Your task to perform on an android device: snooze an email in the gmail app Image 0: 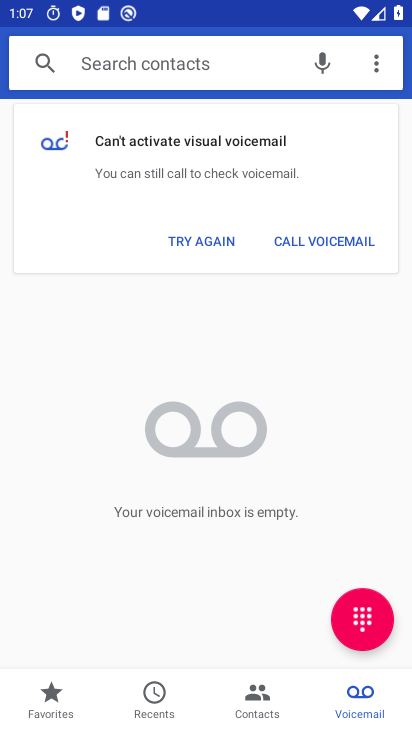
Step 0: drag from (337, 609) to (313, 233)
Your task to perform on an android device: snooze an email in the gmail app Image 1: 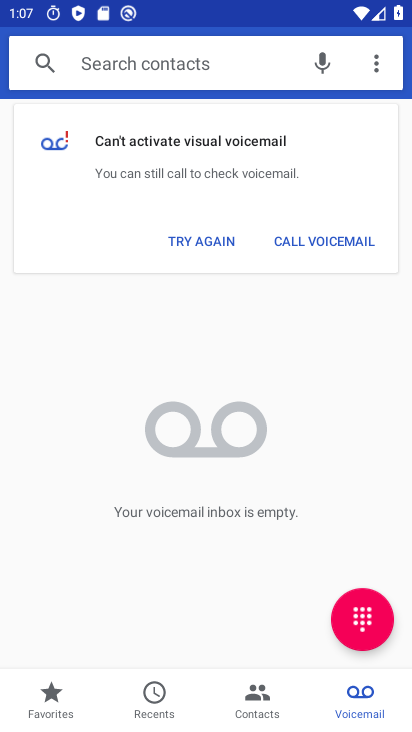
Step 1: press home button
Your task to perform on an android device: snooze an email in the gmail app Image 2: 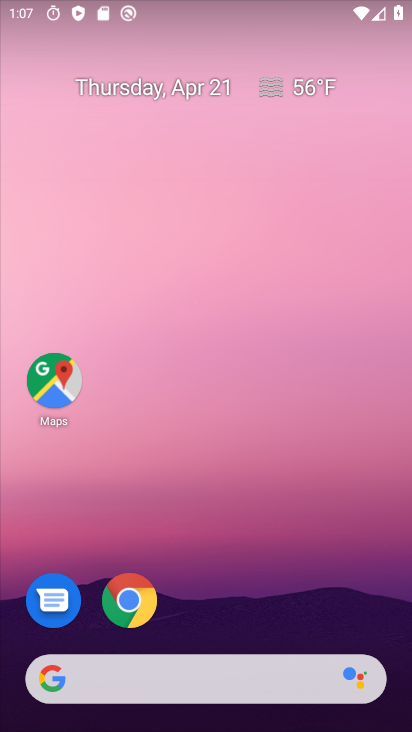
Step 2: drag from (346, 452) to (323, 180)
Your task to perform on an android device: snooze an email in the gmail app Image 3: 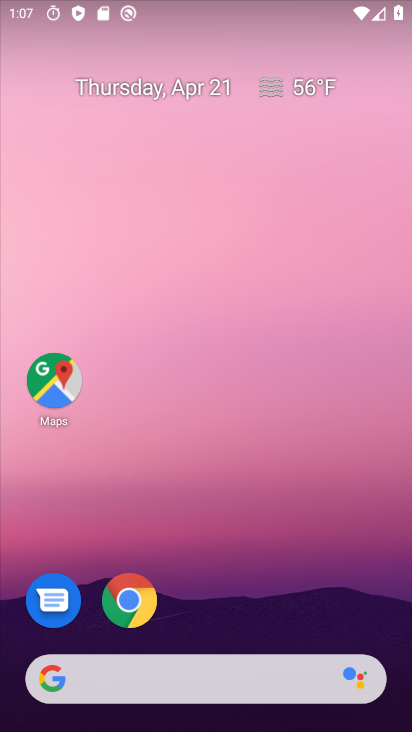
Step 3: click (329, 168)
Your task to perform on an android device: snooze an email in the gmail app Image 4: 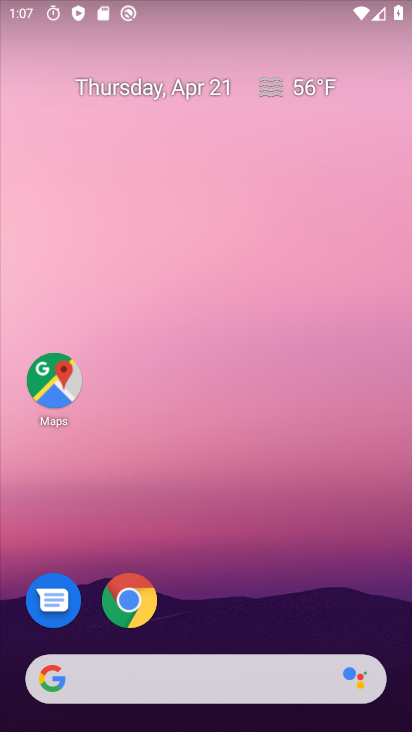
Step 4: drag from (370, 503) to (351, 73)
Your task to perform on an android device: snooze an email in the gmail app Image 5: 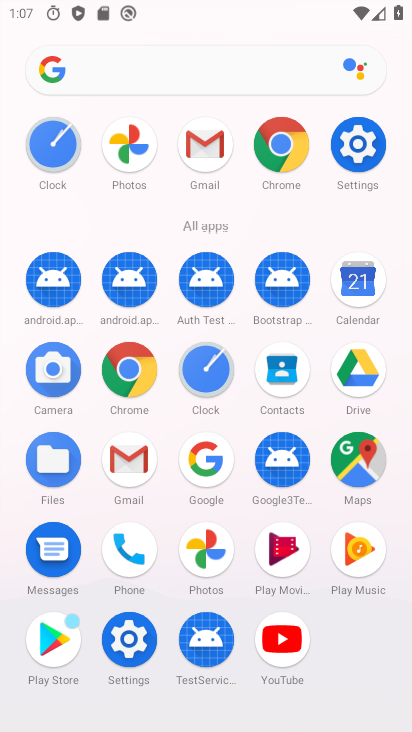
Step 5: click (204, 135)
Your task to perform on an android device: snooze an email in the gmail app Image 6: 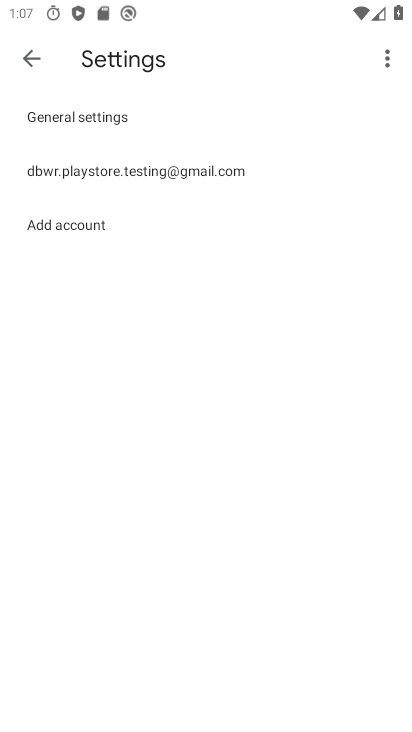
Step 6: click (22, 63)
Your task to perform on an android device: snooze an email in the gmail app Image 7: 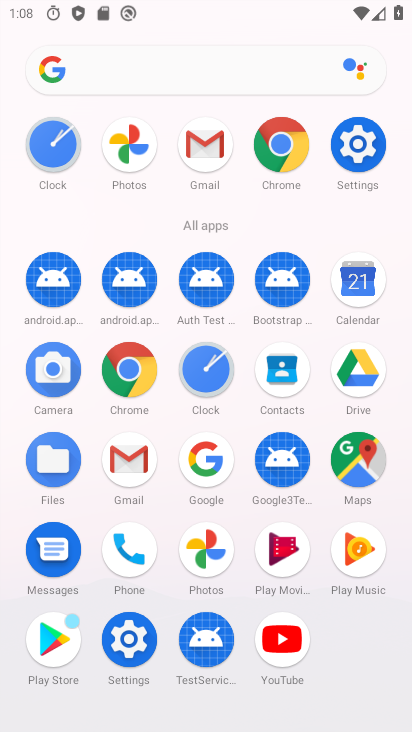
Step 7: click (197, 148)
Your task to perform on an android device: snooze an email in the gmail app Image 8: 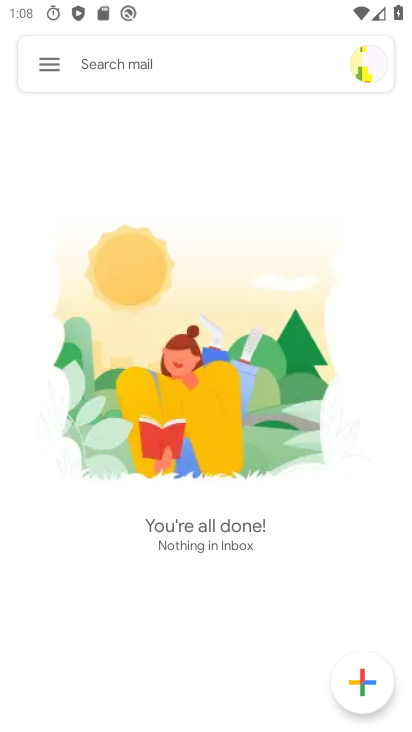
Step 8: click (45, 61)
Your task to perform on an android device: snooze an email in the gmail app Image 9: 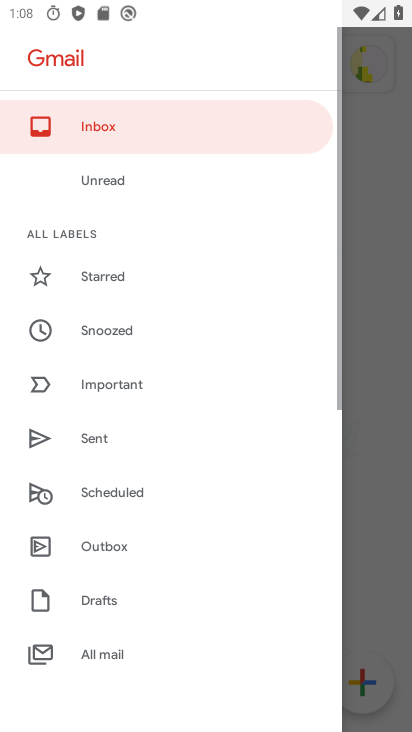
Step 9: click (112, 123)
Your task to perform on an android device: snooze an email in the gmail app Image 10: 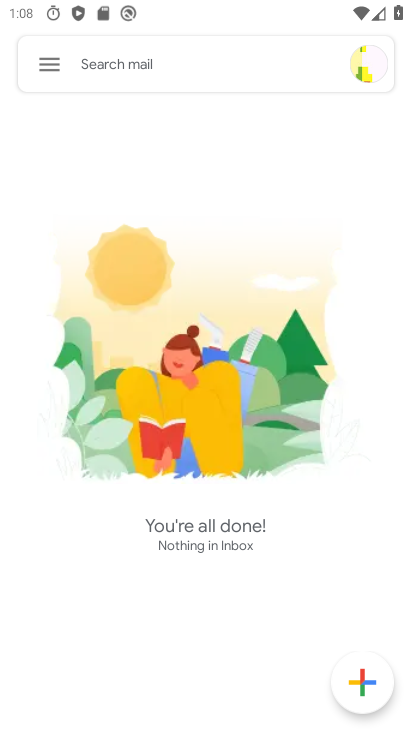
Step 10: click (43, 65)
Your task to perform on an android device: snooze an email in the gmail app Image 11: 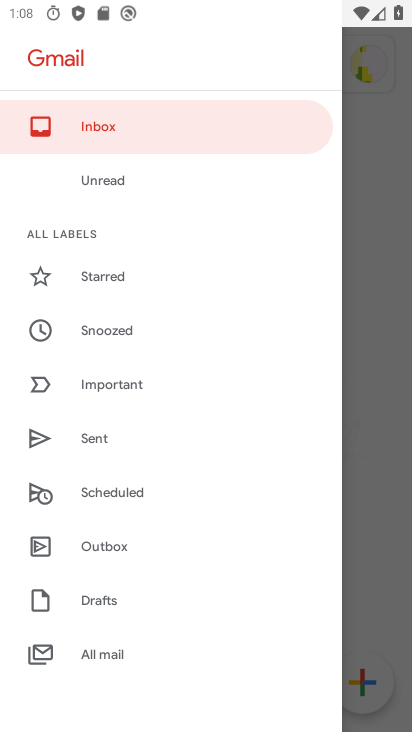
Step 11: click (100, 129)
Your task to perform on an android device: snooze an email in the gmail app Image 12: 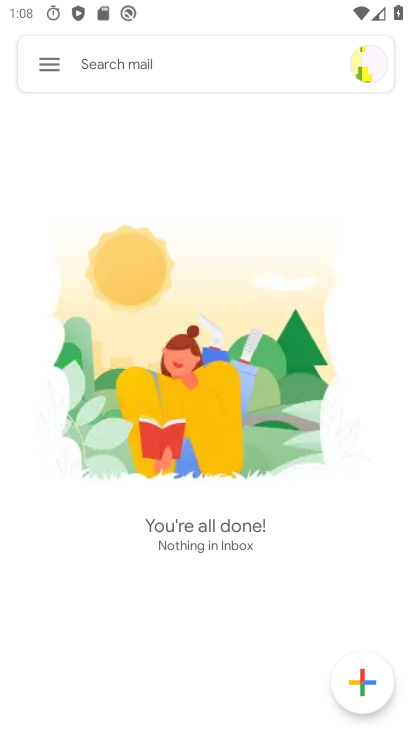
Step 12: task complete